Your task to perform on an android device: turn pop-ups on in chrome Image 0: 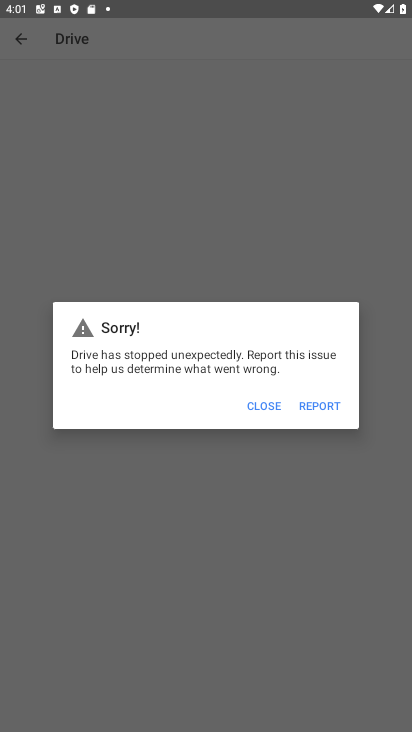
Step 0: press back button
Your task to perform on an android device: turn pop-ups on in chrome Image 1: 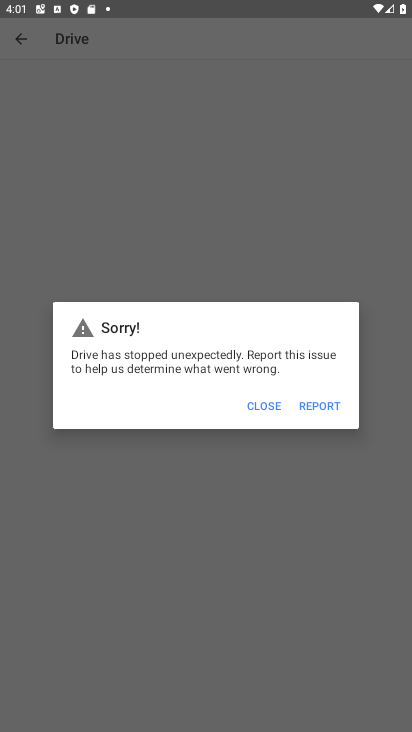
Step 1: press back button
Your task to perform on an android device: turn pop-ups on in chrome Image 2: 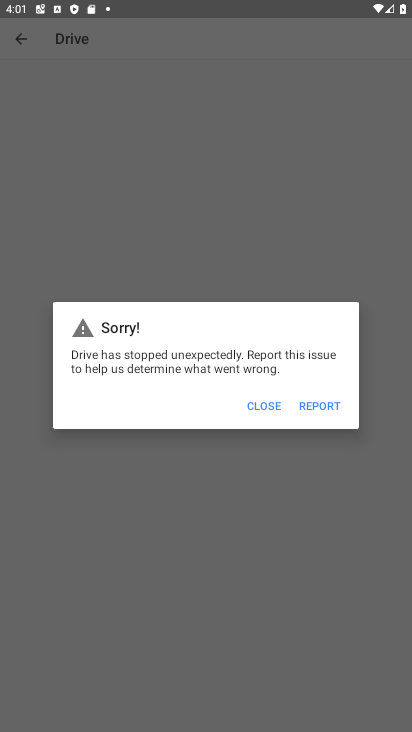
Step 2: press back button
Your task to perform on an android device: turn pop-ups on in chrome Image 3: 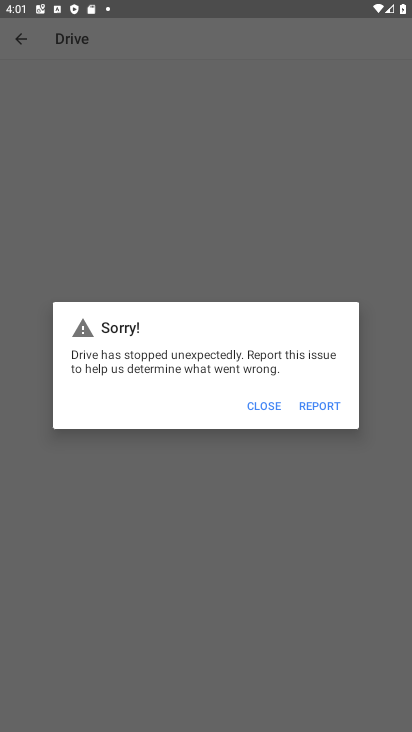
Step 3: press home button
Your task to perform on an android device: turn pop-ups on in chrome Image 4: 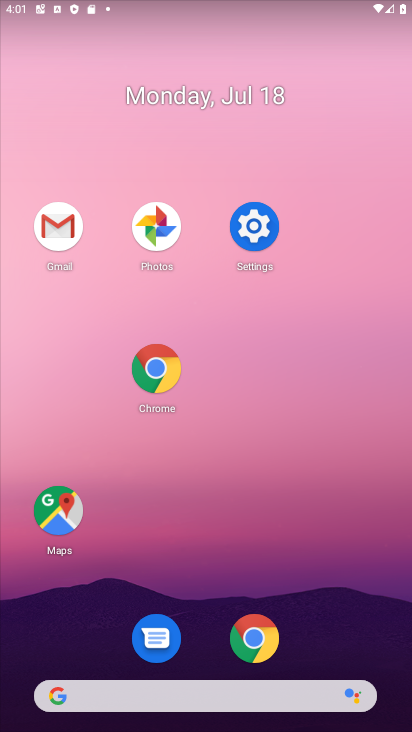
Step 4: click (163, 363)
Your task to perform on an android device: turn pop-ups on in chrome Image 5: 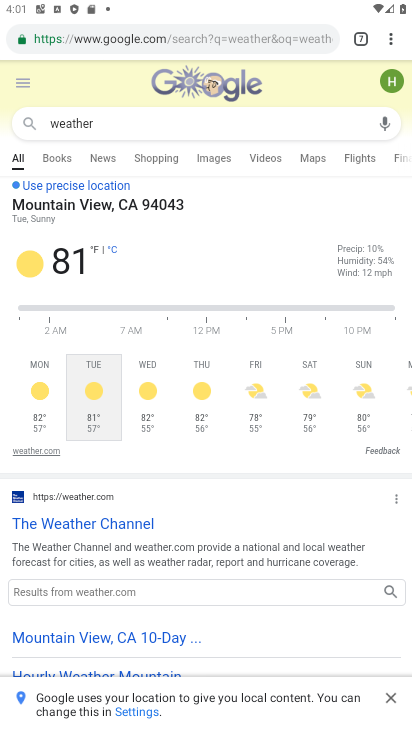
Step 5: click (392, 39)
Your task to perform on an android device: turn pop-ups on in chrome Image 6: 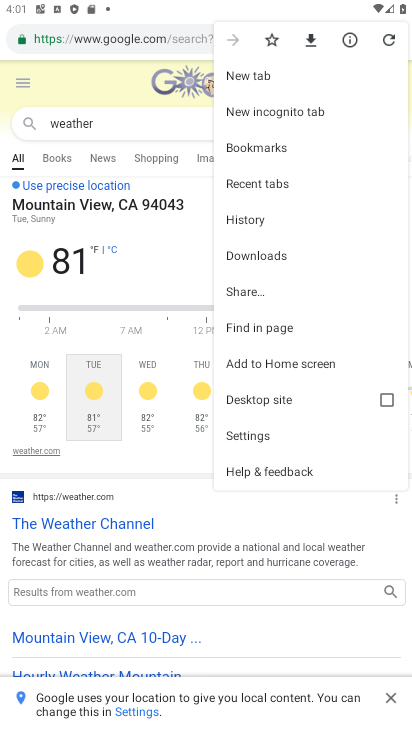
Step 6: click (249, 431)
Your task to perform on an android device: turn pop-ups on in chrome Image 7: 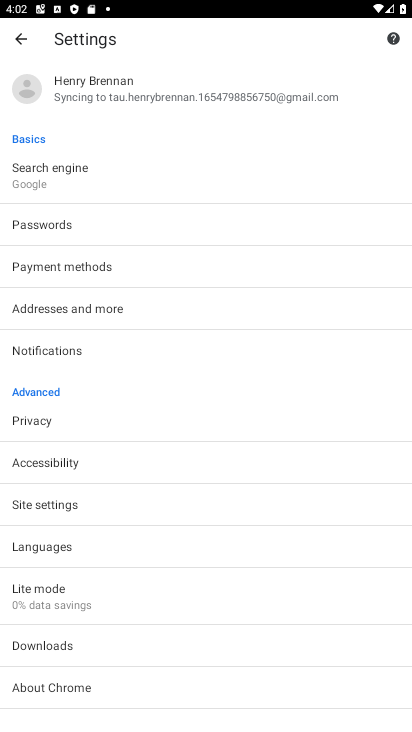
Step 7: click (126, 504)
Your task to perform on an android device: turn pop-ups on in chrome Image 8: 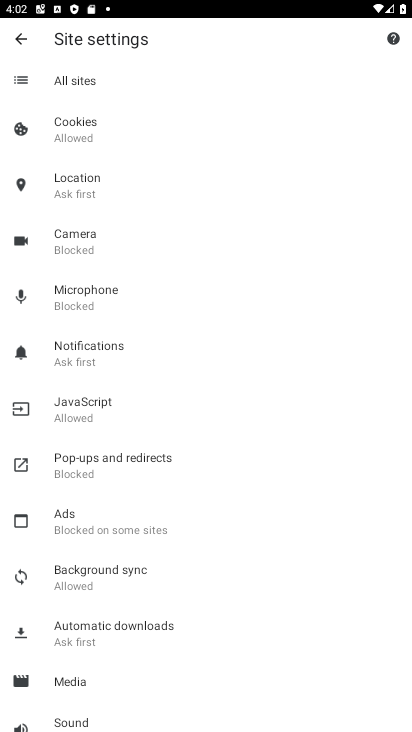
Step 8: click (137, 476)
Your task to perform on an android device: turn pop-ups on in chrome Image 9: 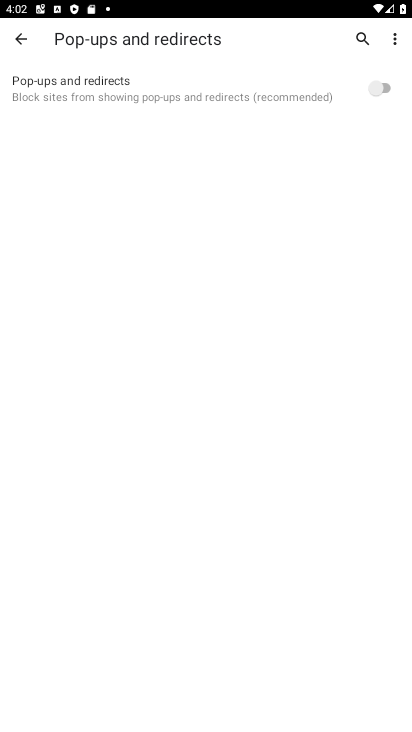
Step 9: click (396, 83)
Your task to perform on an android device: turn pop-ups on in chrome Image 10: 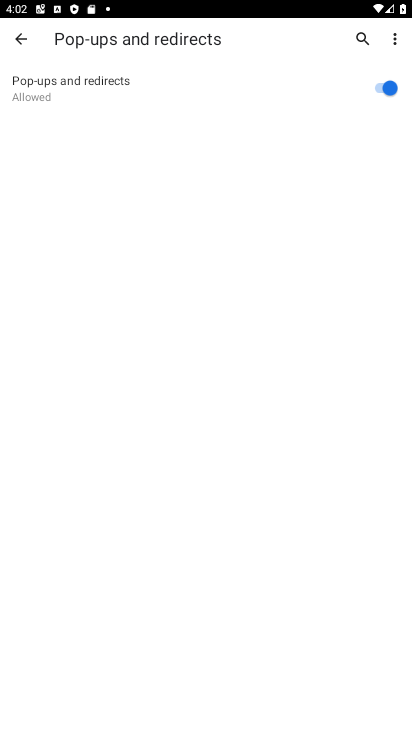
Step 10: task complete